Your task to perform on an android device: check android version Image 0: 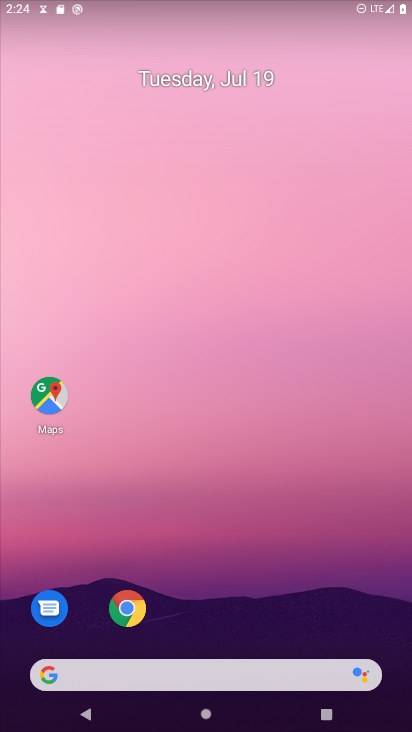
Step 0: drag from (309, 603) to (307, 12)
Your task to perform on an android device: check android version Image 1: 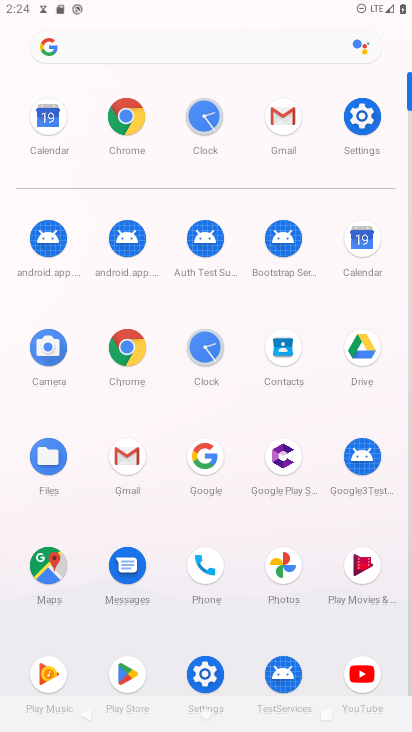
Step 1: click (125, 349)
Your task to perform on an android device: check android version Image 2: 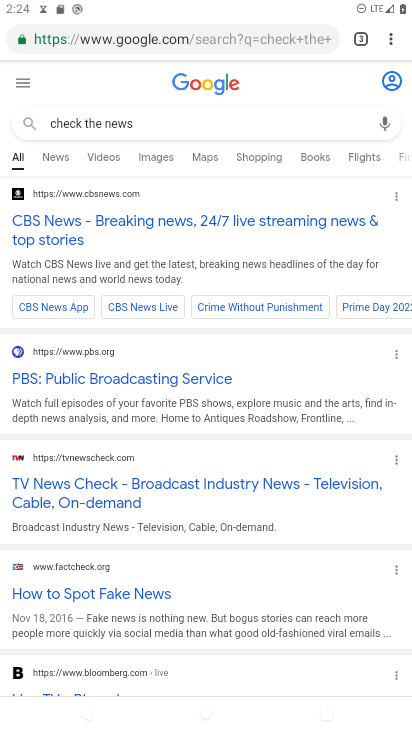
Step 2: drag from (392, 37) to (268, 472)
Your task to perform on an android device: check android version Image 3: 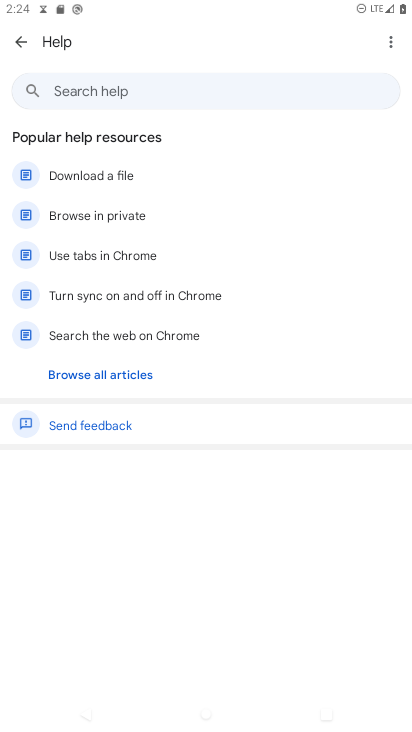
Step 3: click (389, 43)
Your task to perform on an android device: check android version Image 4: 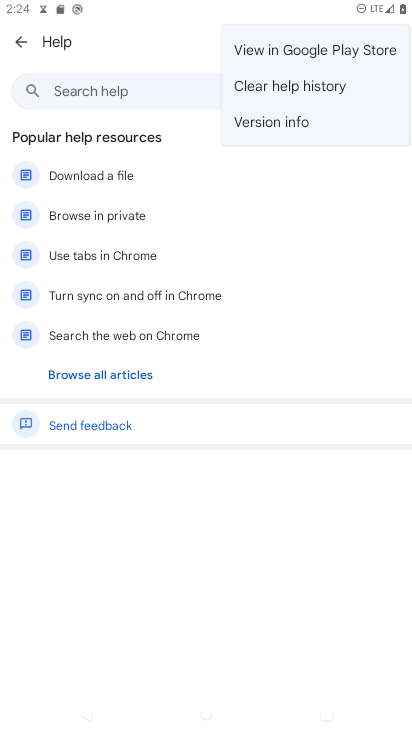
Step 4: click (311, 120)
Your task to perform on an android device: check android version Image 5: 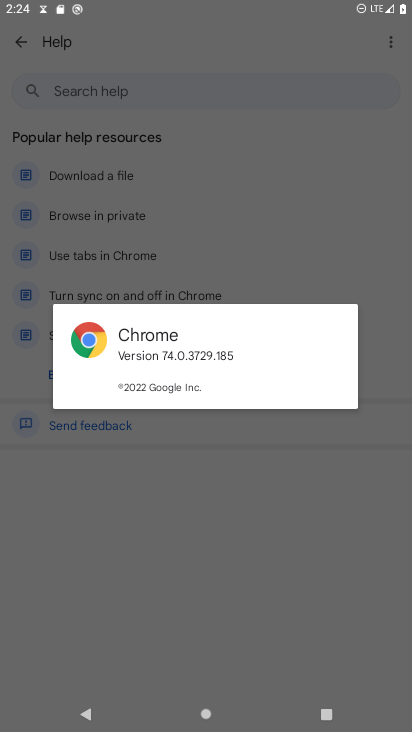
Step 5: task complete